Your task to perform on an android device: turn vacation reply on in the gmail app Image 0: 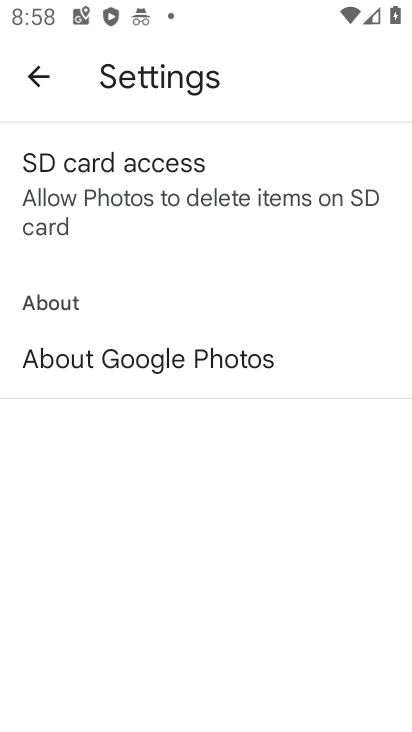
Step 0: press home button
Your task to perform on an android device: turn vacation reply on in the gmail app Image 1: 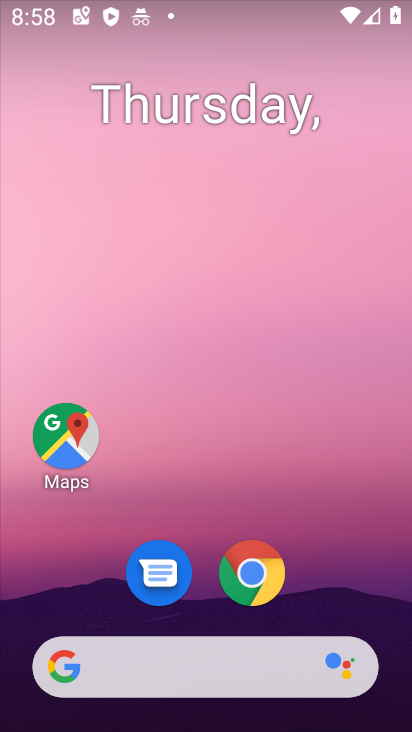
Step 1: drag from (370, 548) to (352, 257)
Your task to perform on an android device: turn vacation reply on in the gmail app Image 2: 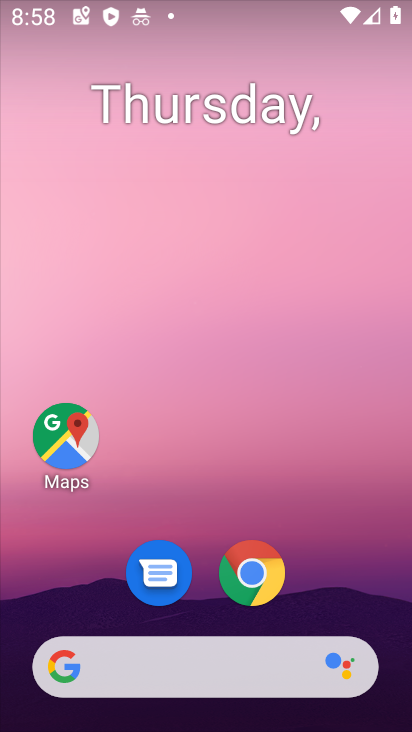
Step 2: drag from (361, 537) to (317, 226)
Your task to perform on an android device: turn vacation reply on in the gmail app Image 3: 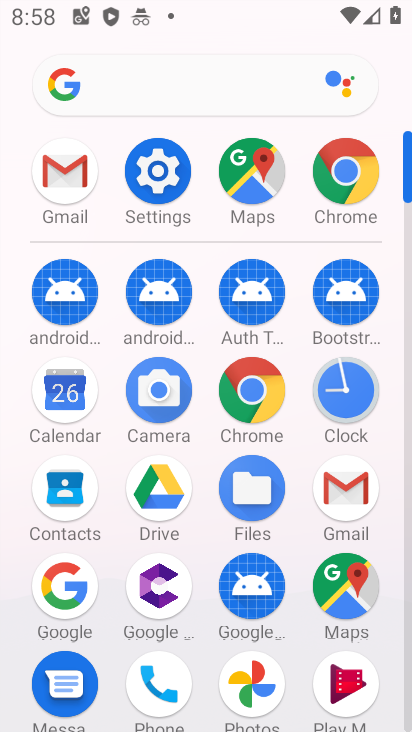
Step 3: click (351, 498)
Your task to perform on an android device: turn vacation reply on in the gmail app Image 4: 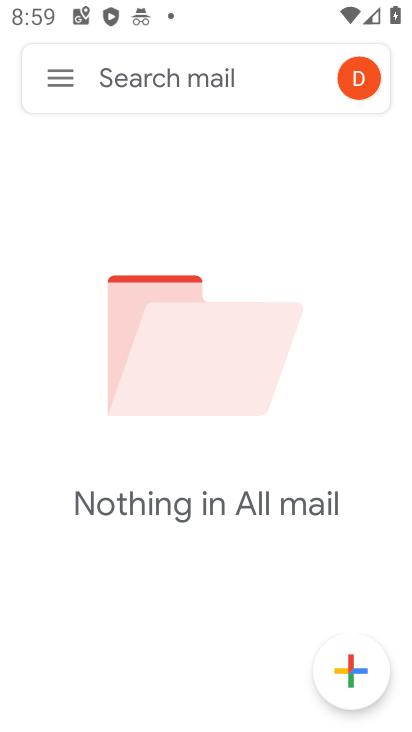
Step 4: click (41, 69)
Your task to perform on an android device: turn vacation reply on in the gmail app Image 5: 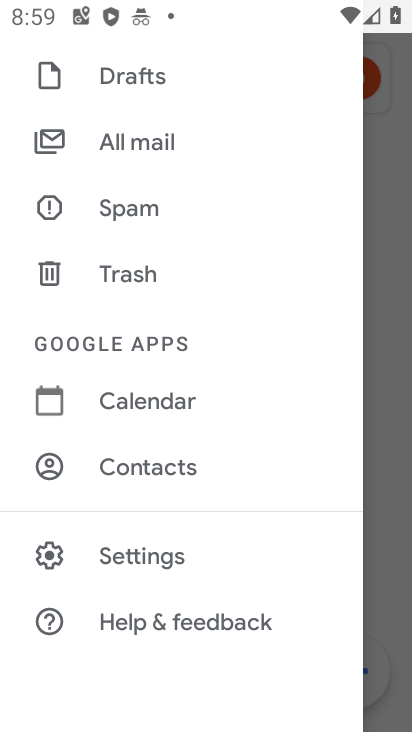
Step 5: click (190, 552)
Your task to perform on an android device: turn vacation reply on in the gmail app Image 6: 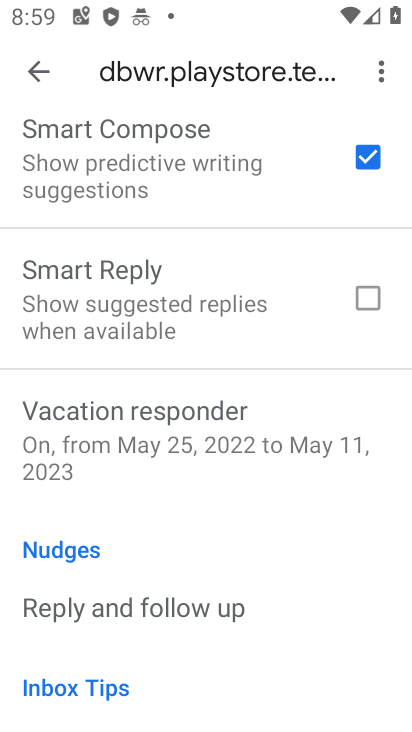
Step 6: click (174, 442)
Your task to perform on an android device: turn vacation reply on in the gmail app Image 7: 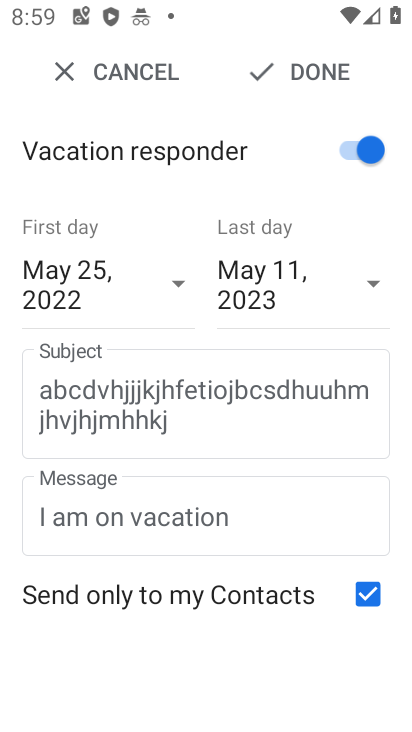
Step 7: task complete